Your task to perform on an android device: Play the last video I watched on Youtube Image 0: 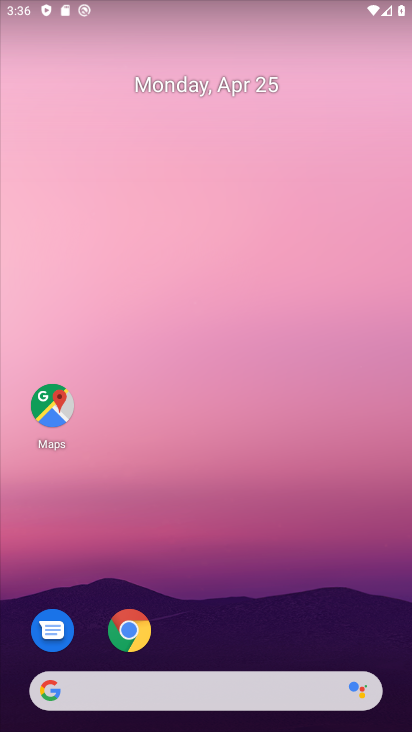
Step 0: drag from (326, 570) to (395, 0)
Your task to perform on an android device: Play the last video I watched on Youtube Image 1: 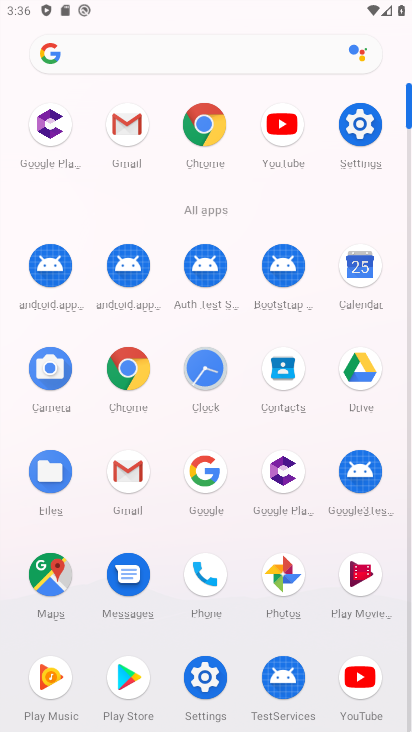
Step 1: click (296, 134)
Your task to perform on an android device: Play the last video I watched on Youtube Image 2: 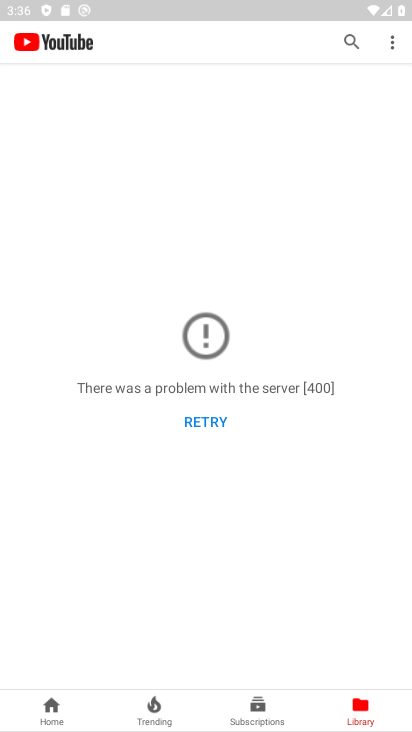
Step 2: click (264, 122)
Your task to perform on an android device: Play the last video I watched on Youtube Image 3: 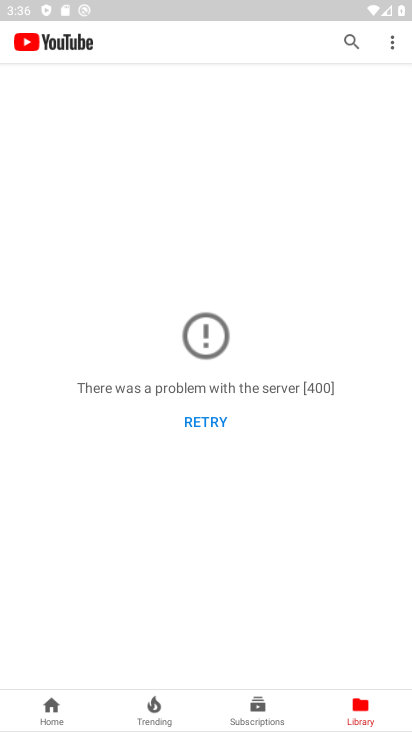
Step 3: click (311, 173)
Your task to perform on an android device: Play the last video I watched on Youtube Image 4: 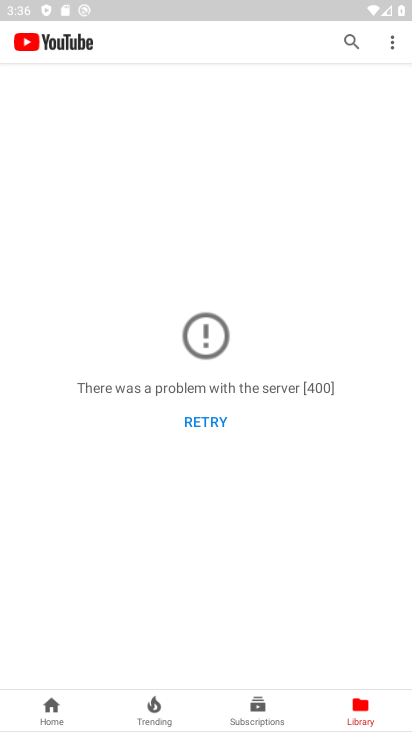
Step 4: click (361, 714)
Your task to perform on an android device: Play the last video I watched on Youtube Image 5: 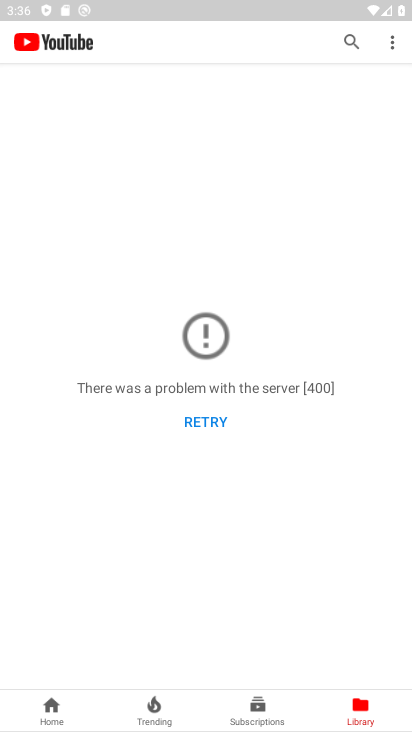
Step 5: task complete